Your task to perform on an android device: Go to Google maps Image 0: 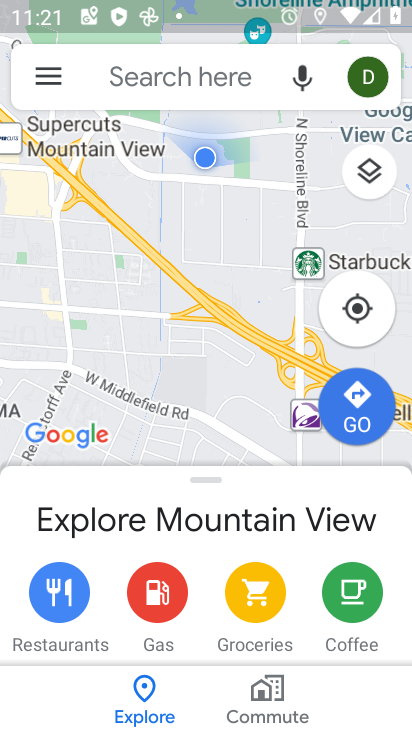
Step 0: drag from (201, 413) to (178, 266)
Your task to perform on an android device: Go to Google maps Image 1: 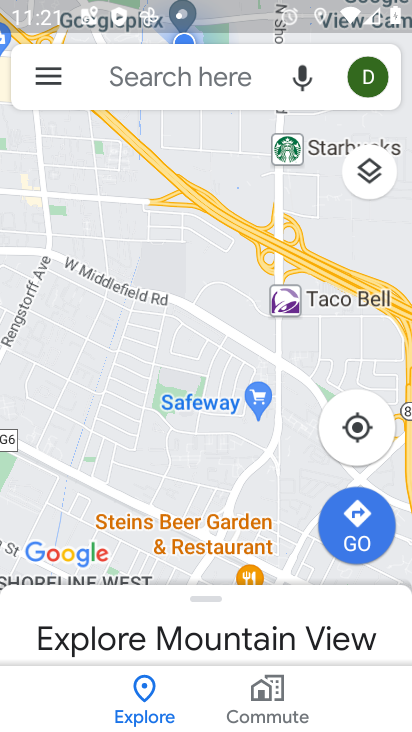
Step 1: task complete